Your task to perform on an android device: open app "McDonald's" Image 0: 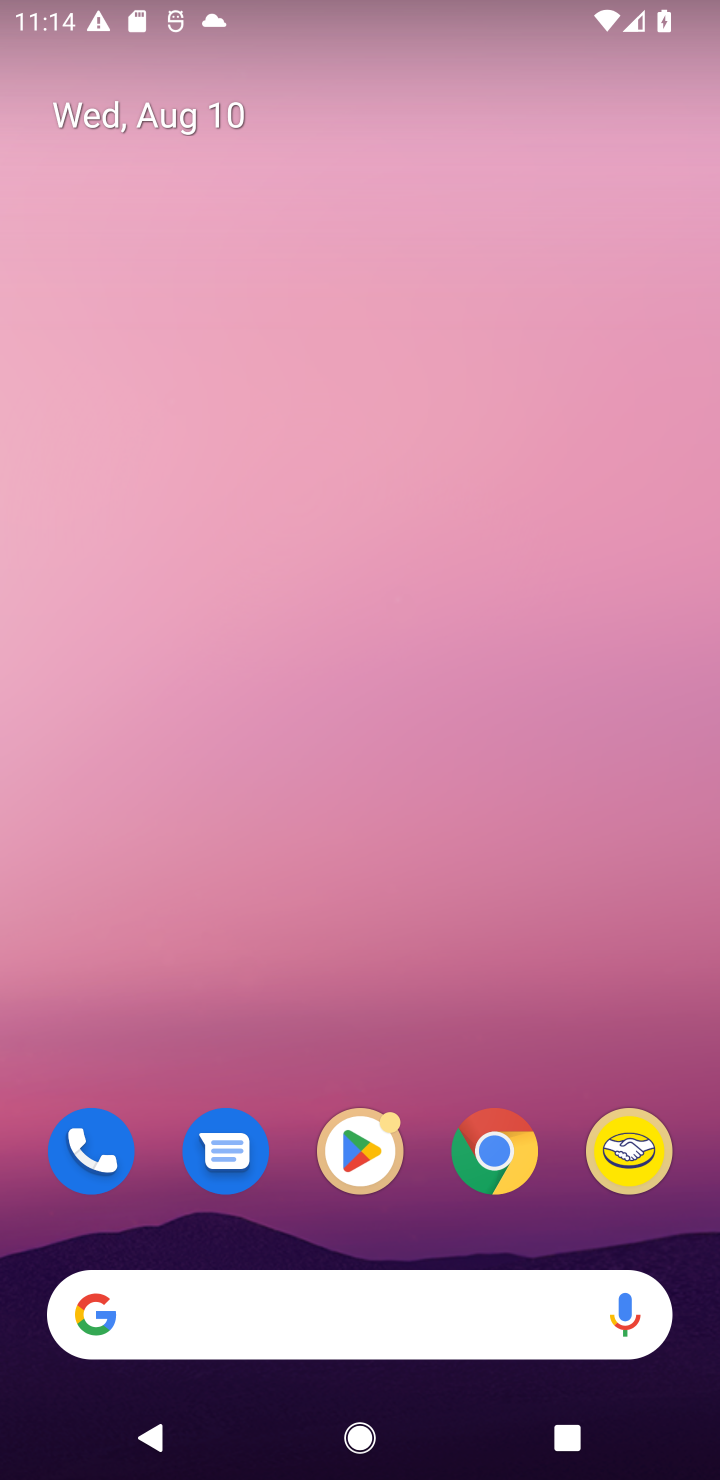
Step 0: click (368, 1142)
Your task to perform on an android device: open app "McDonald's" Image 1: 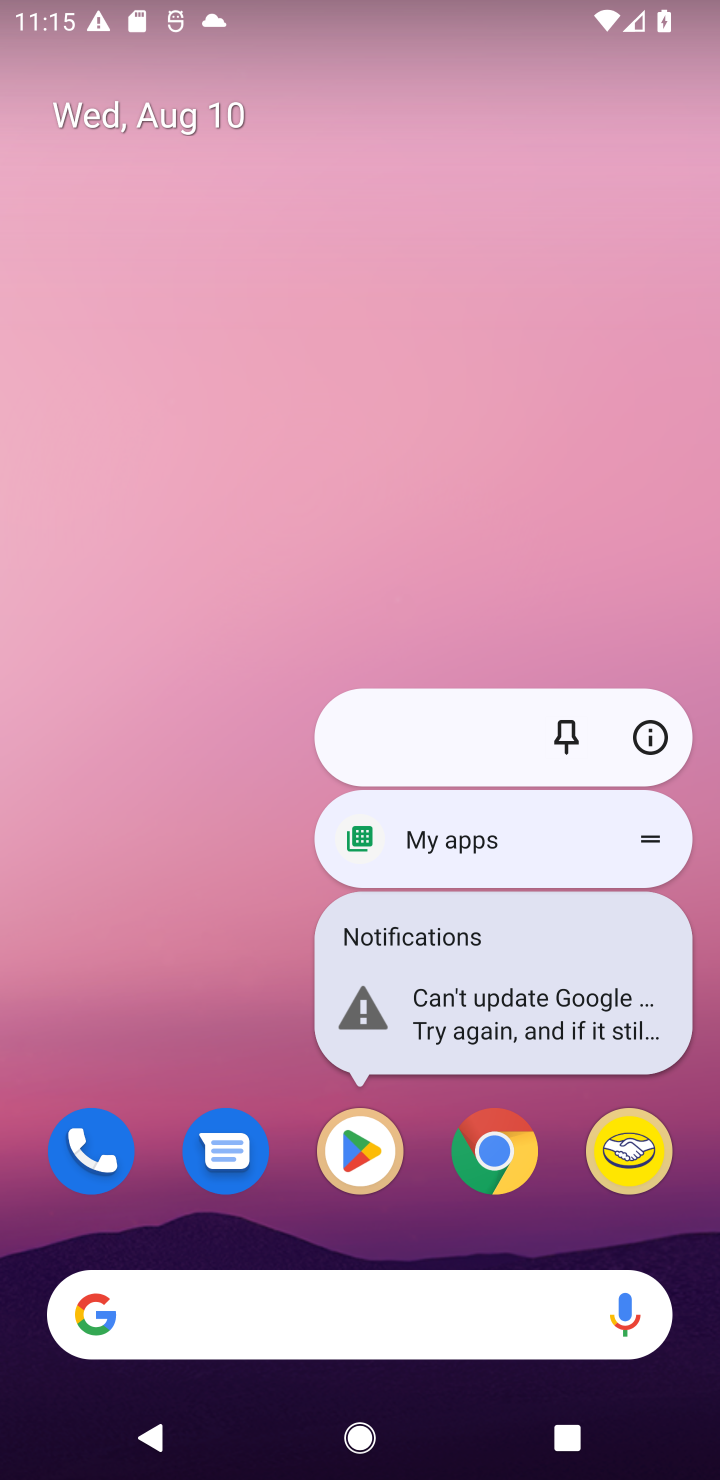
Step 1: click (262, 922)
Your task to perform on an android device: open app "McDonald's" Image 2: 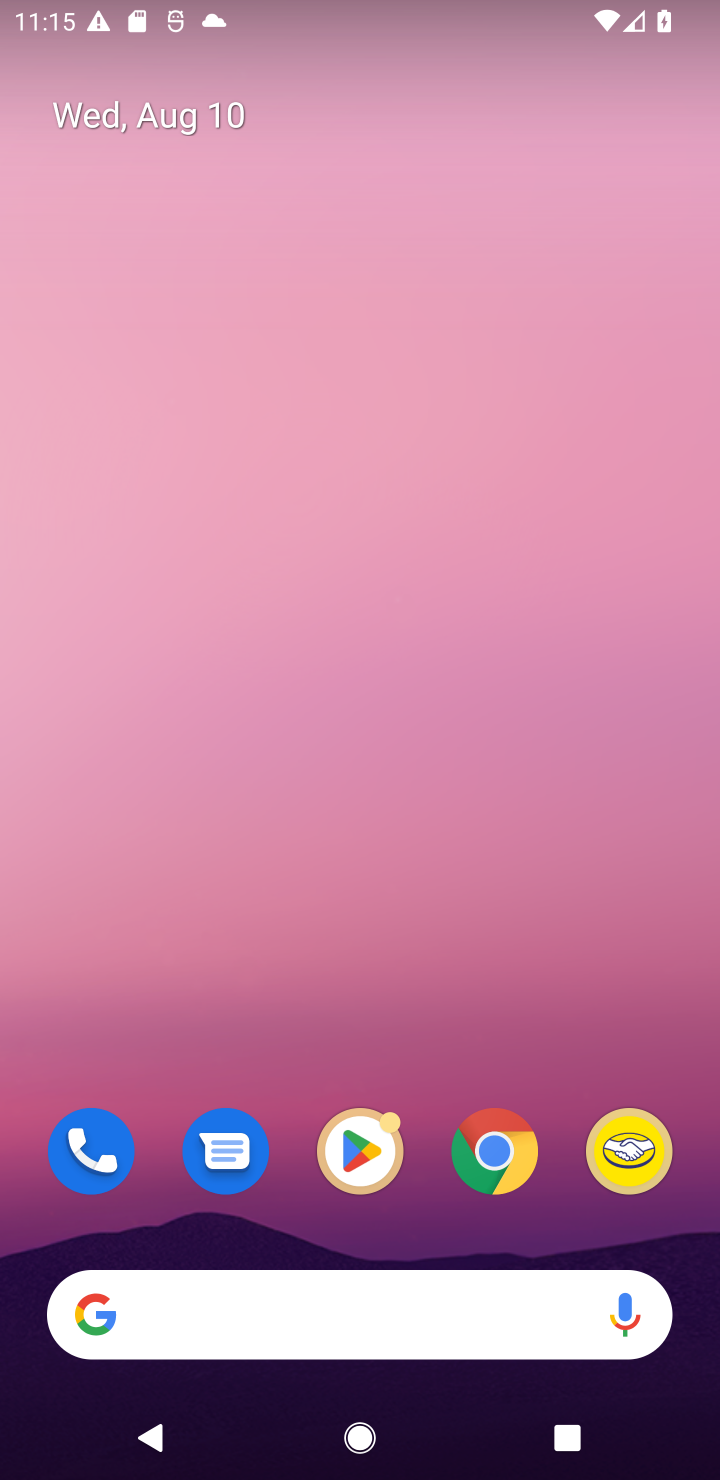
Step 2: drag from (420, 1218) to (404, 265)
Your task to perform on an android device: open app "McDonald's" Image 3: 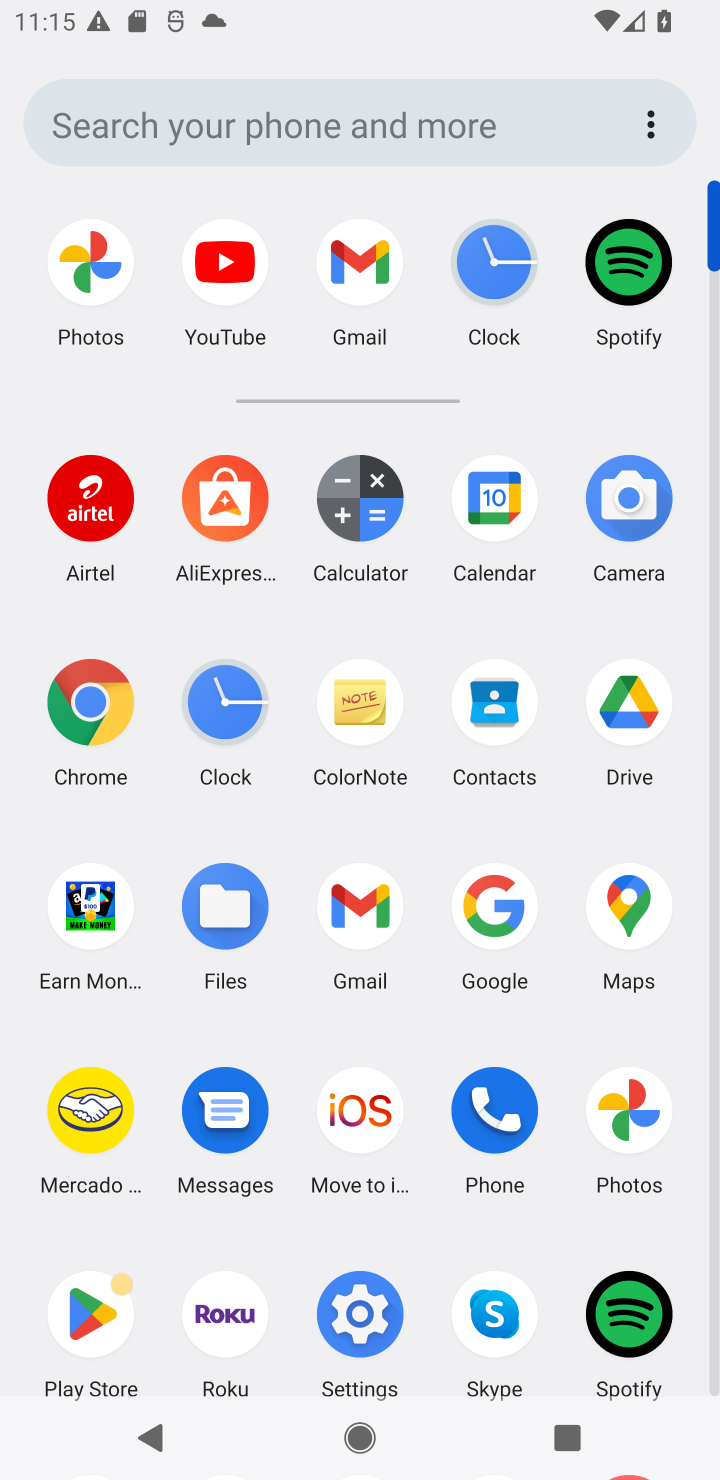
Step 3: click (87, 1308)
Your task to perform on an android device: open app "McDonald's" Image 4: 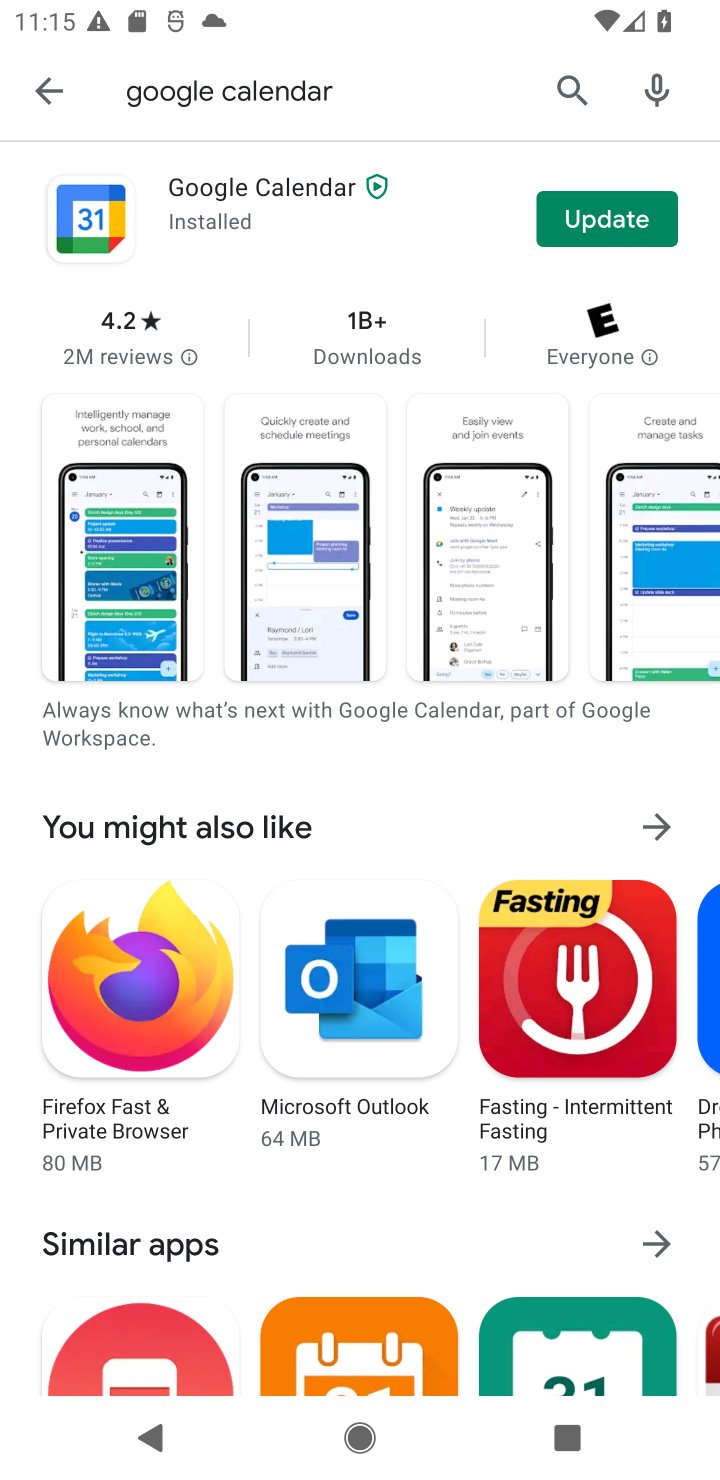
Step 4: click (562, 95)
Your task to perform on an android device: open app "McDonald's" Image 5: 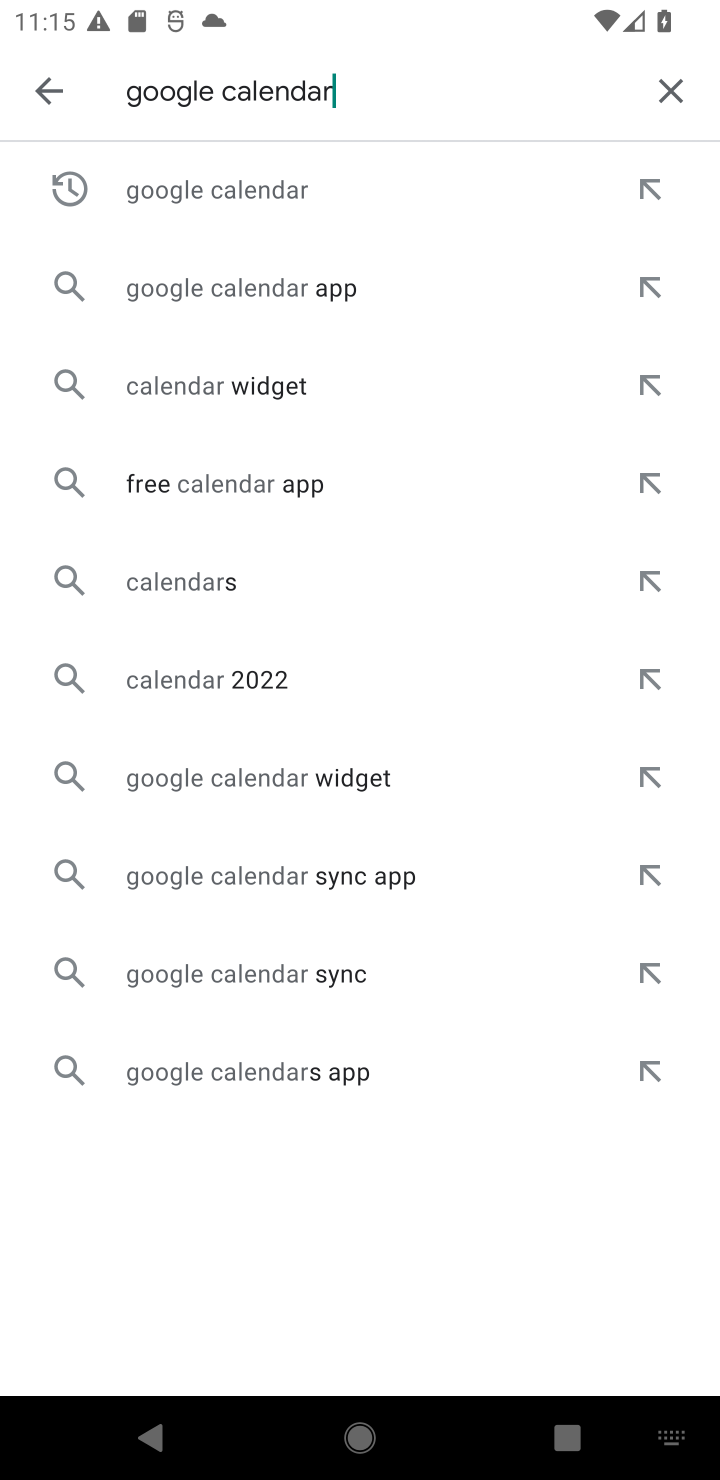
Step 5: click (667, 81)
Your task to perform on an android device: open app "McDonald's" Image 6: 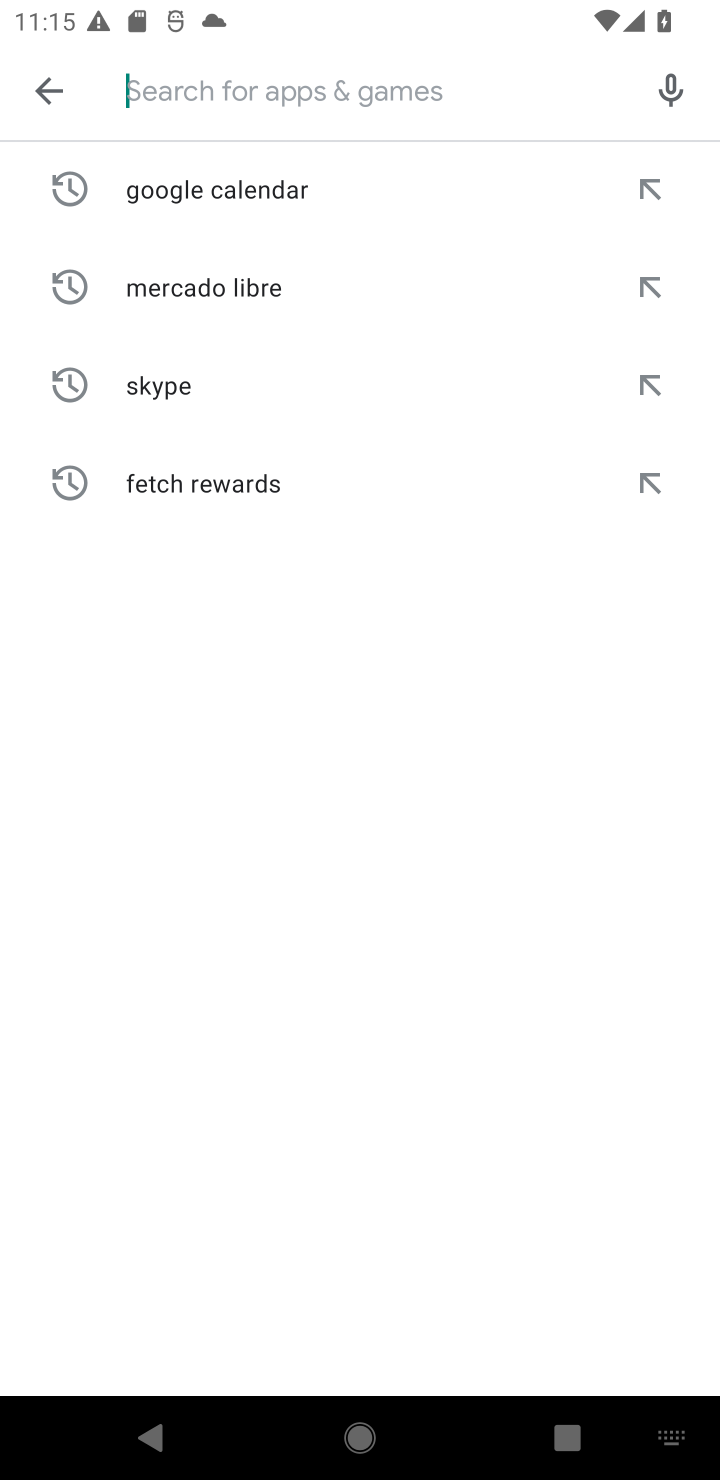
Step 6: type "McDonald's"
Your task to perform on an android device: open app "McDonald's" Image 7: 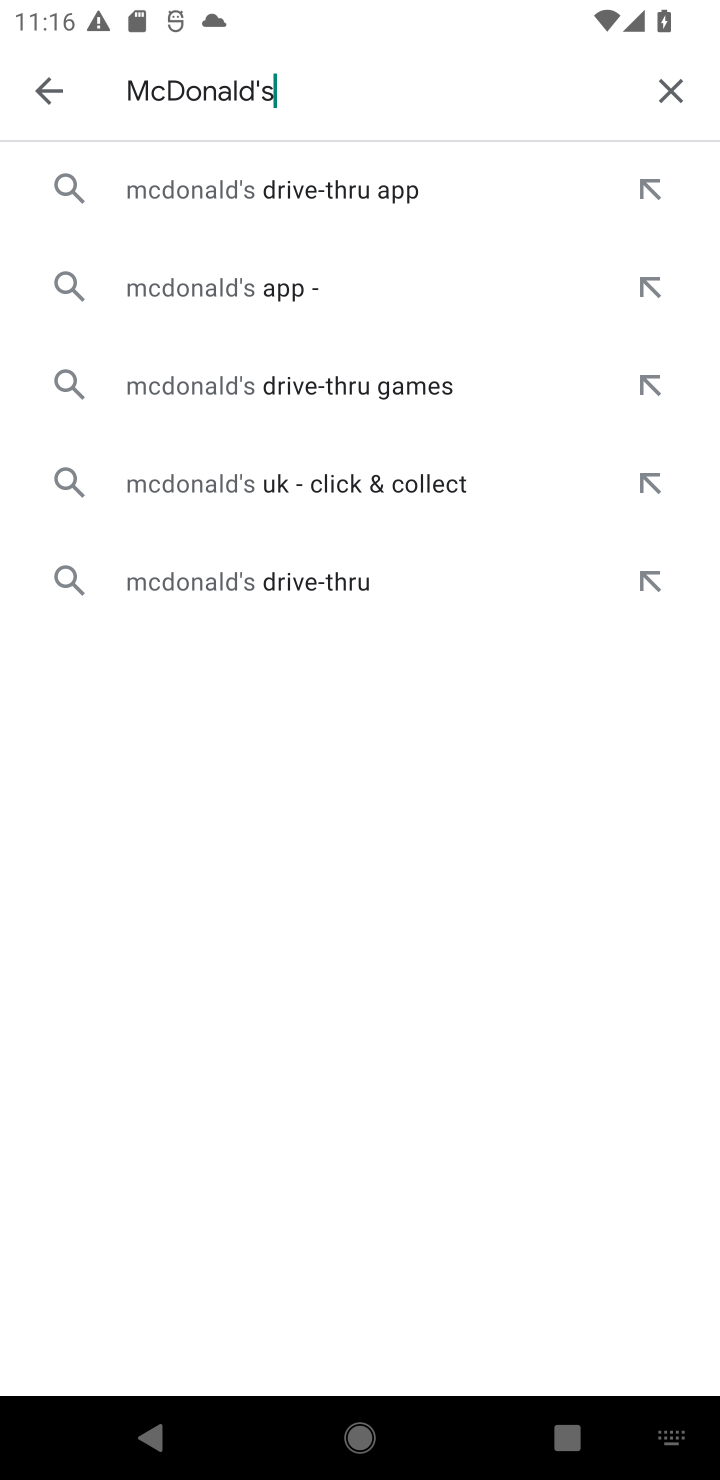
Step 7: click (264, 293)
Your task to perform on an android device: open app "McDonald's" Image 8: 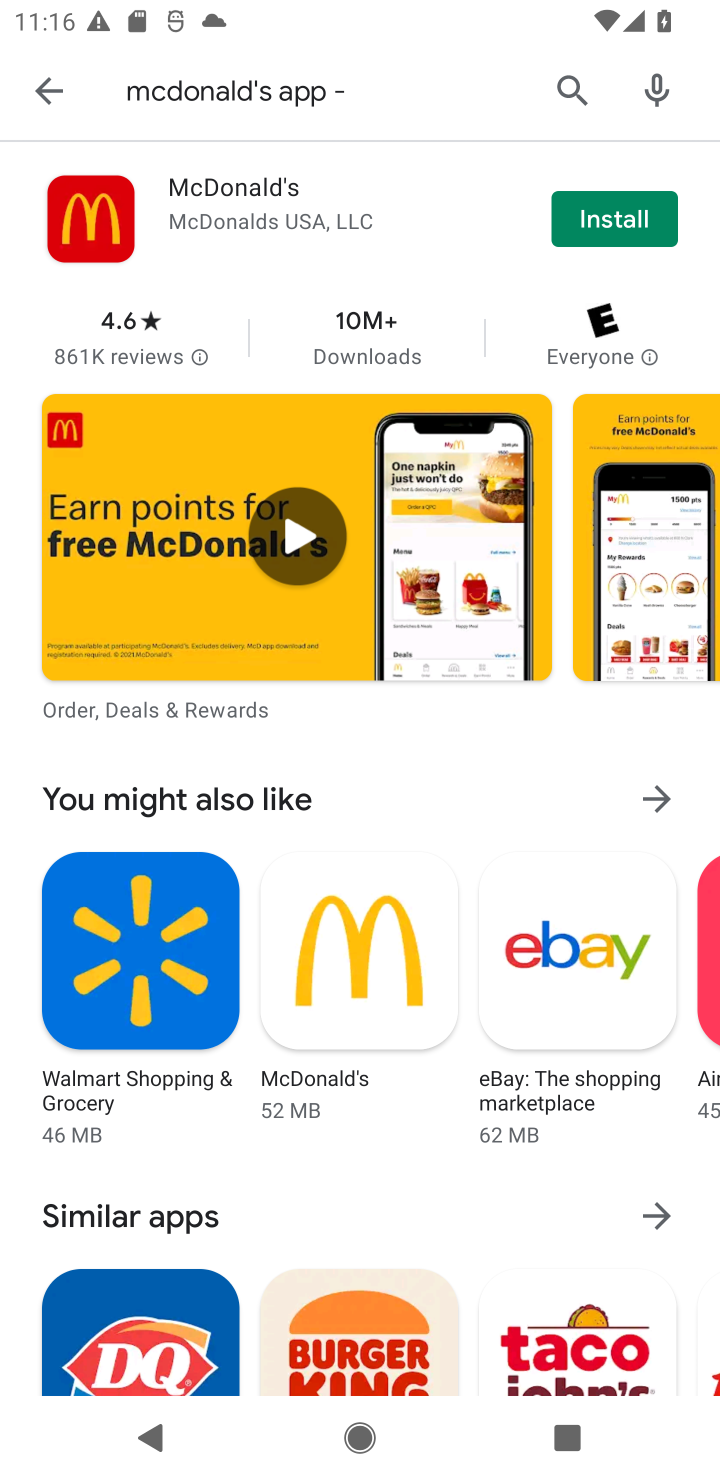
Step 8: task complete